Your task to perform on an android device: turn on location history Image 0: 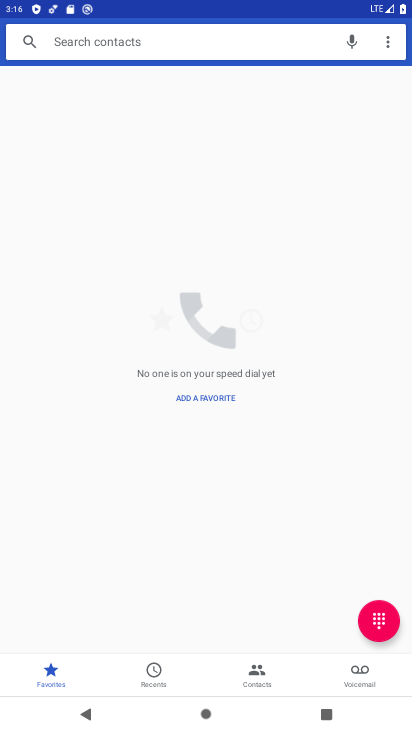
Step 0: press back button
Your task to perform on an android device: turn on location history Image 1: 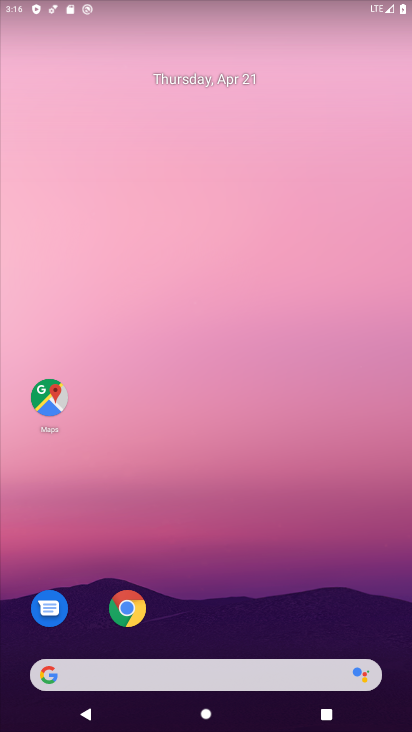
Step 1: drag from (189, 640) to (298, 115)
Your task to perform on an android device: turn on location history Image 2: 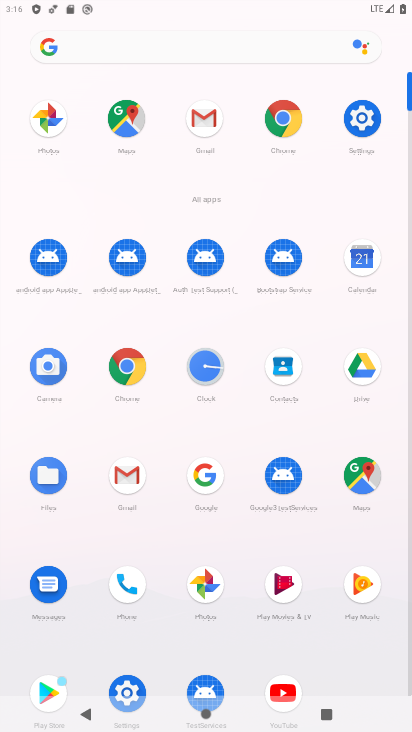
Step 2: click (363, 117)
Your task to perform on an android device: turn on location history Image 3: 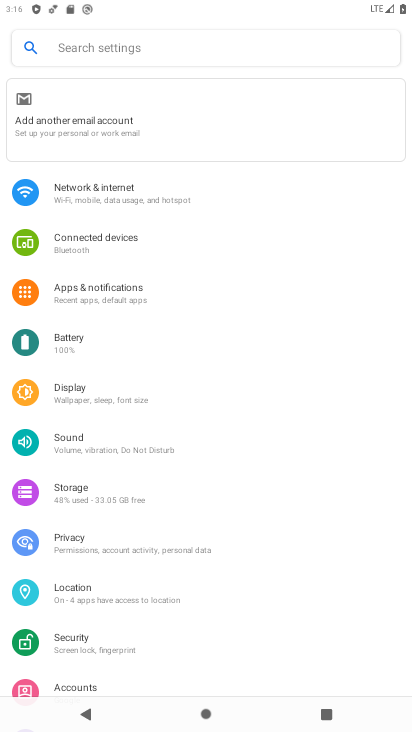
Step 3: click (98, 599)
Your task to perform on an android device: turn on location history Image 4: 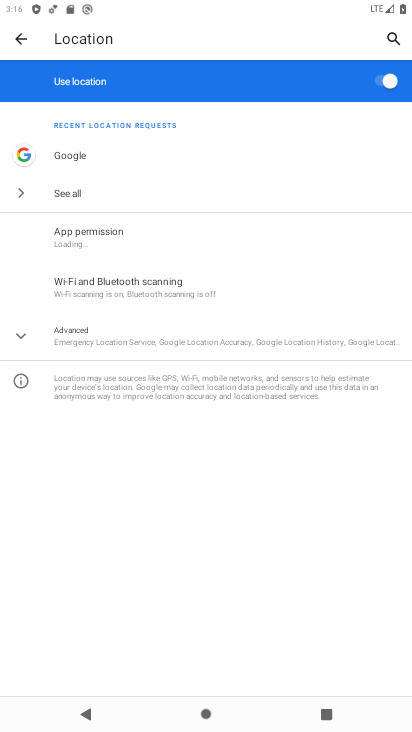
Step 4: click (103, 342)
Your task to perform on an android device: turn on location history Image 5: 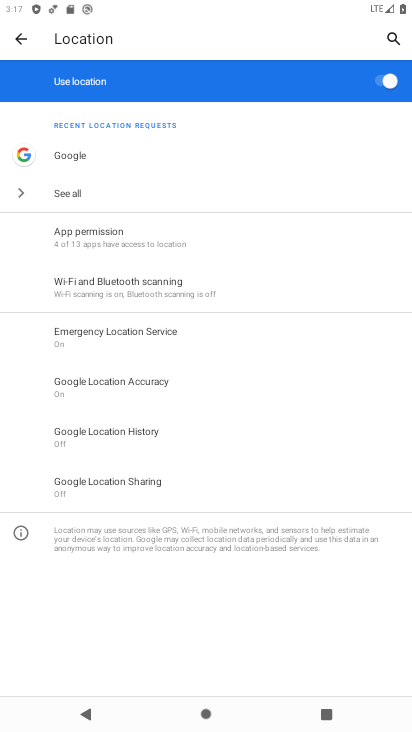
Step 5: click (142, 434)
Your task to perform on an android device: turn on location history Image 6: 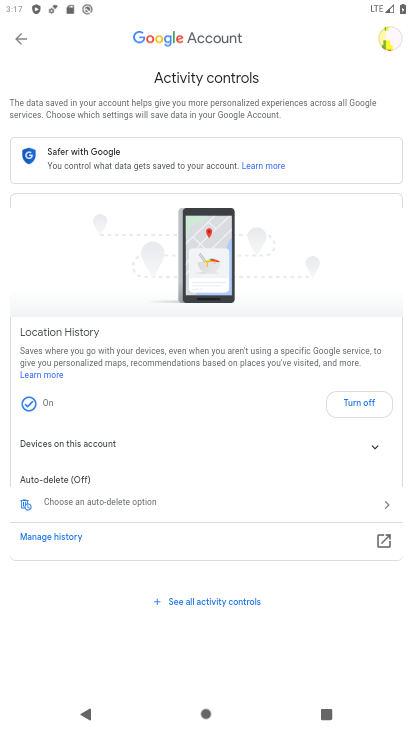
Step 6: task complete